Your task to perform on an android device: turn notification dots off Image 0: 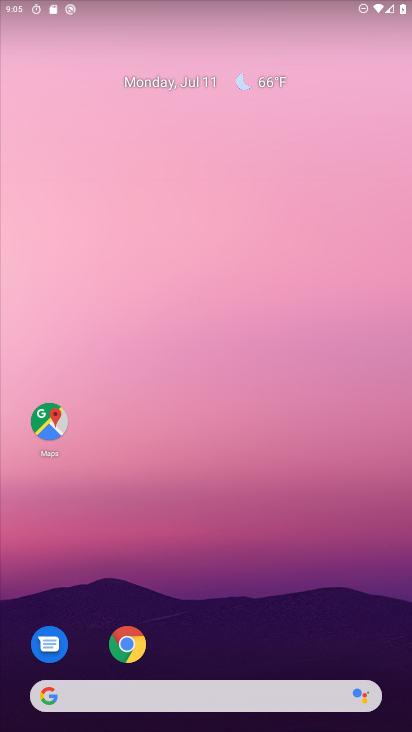
Step 0: drag from (273, 621) to (361, 215)
Your task to perform on an android device: turn notification dots off Image 1: 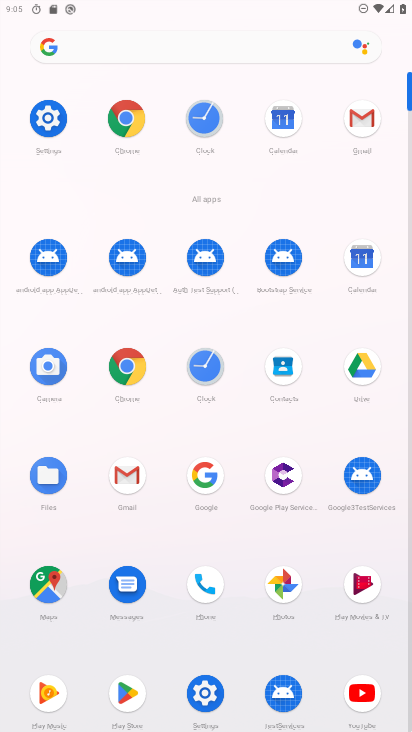
Step 1: click (49, 118)
Your task to perform on an android device: turn notification dots off Image 2: 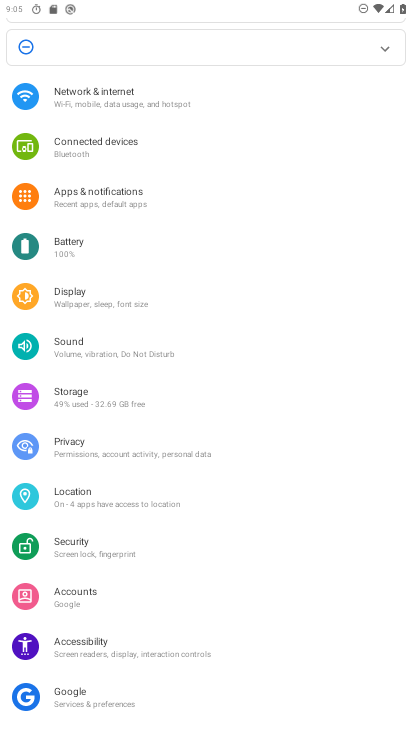
Step 2: click (131, 200)
Your task to perform on an android device: turn notification dots off Image 3: 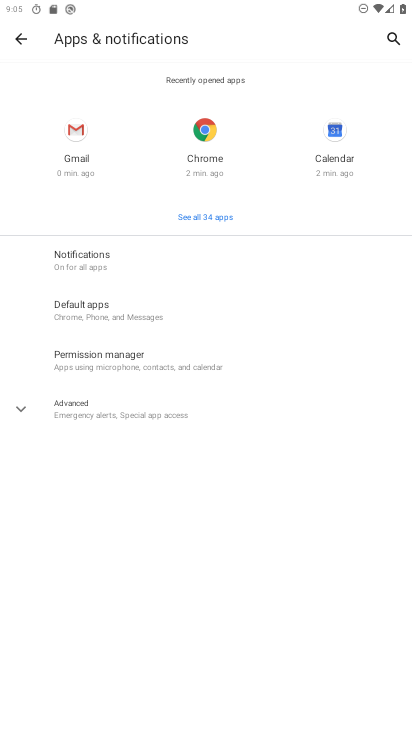
Step 3: click (92, 255)
Your task to perform on an android device: turn notification dots off Image 4: 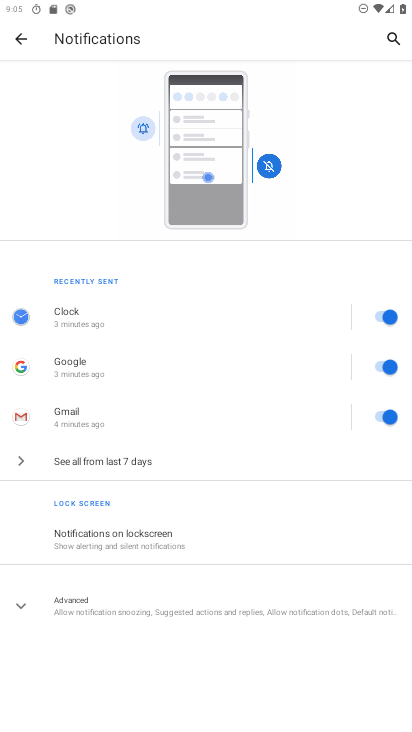
Step 4: click (79, 605)
Your task to perform on an android device: turn notification dots off Image 5: 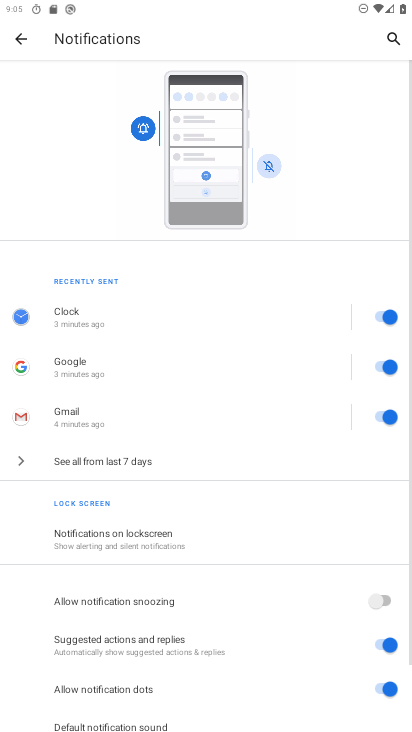
Step 5: drag from (287, 677) to (320, 299)
Your task to perform on an android device: turn notification dots off Image 6: 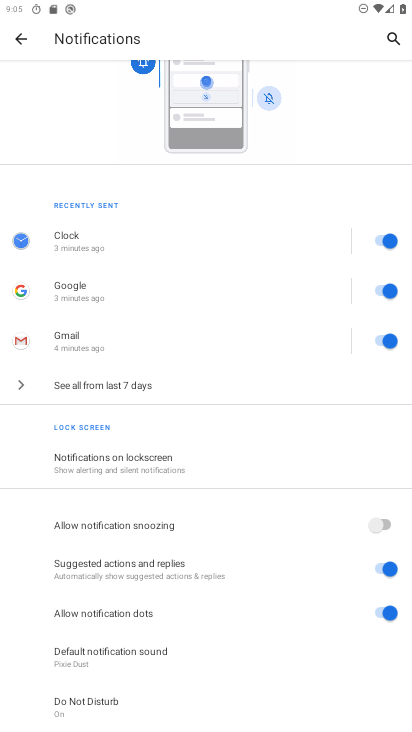
Step 6: click (388, 610)
Your task to perform on an android device: turn notification dots off Image 7: 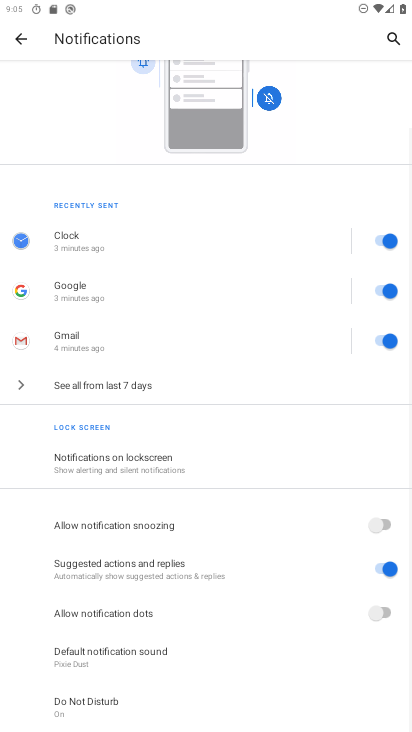
Step 7: task complete